Your task to perform on an android device: Open notification settings Image 0: 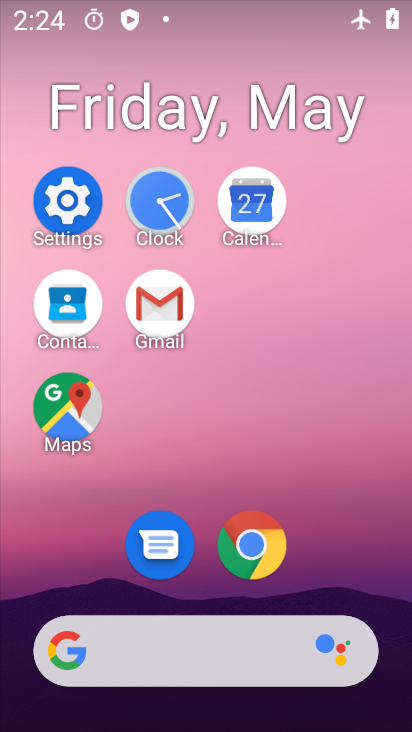
Step 0: click (79, 199)
Your task to perform on an android device: Open notification settings Image 1: 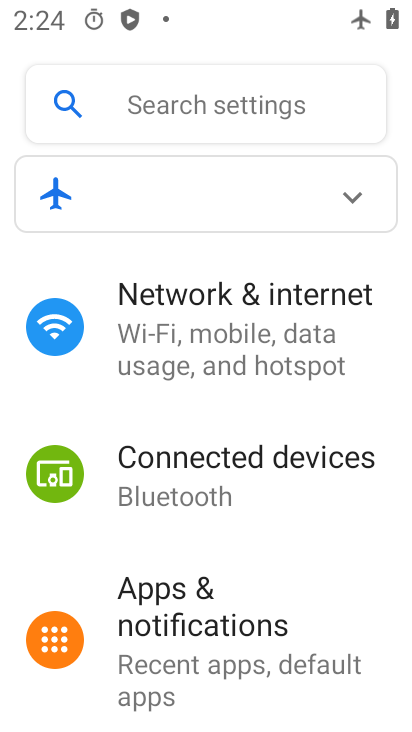
Step 1: click (277, 602)
Your task to perform on an android device: Open notification settings Image 2: 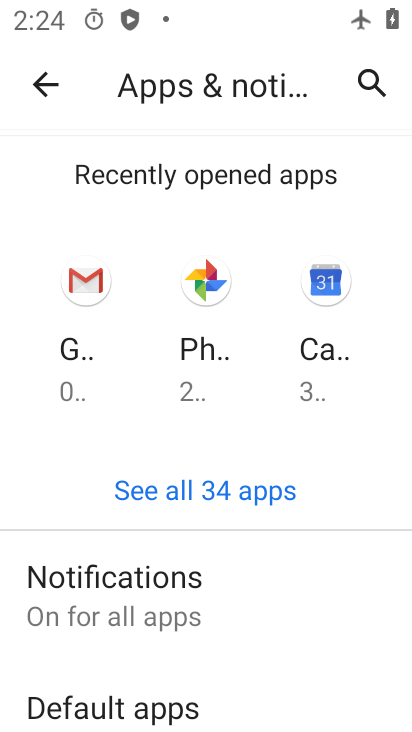
Step 2: task complete